Your task to perform on an android device: turn smart compose on in the gmail app Image 0: 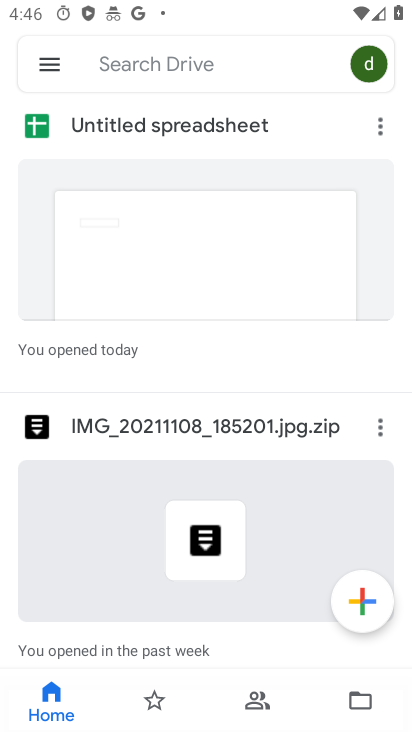
Step 0: press home button
Your task to perform on an android device: turn smart compose on in the gmail app Image 1: 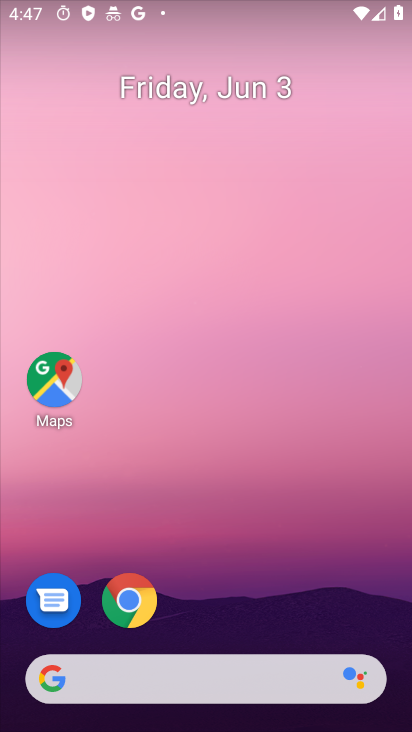
Step 1: drag from (393, 701) to (274, 93)
Your task to perform on an android device: turn smart compose on in the gmail app Image 2: 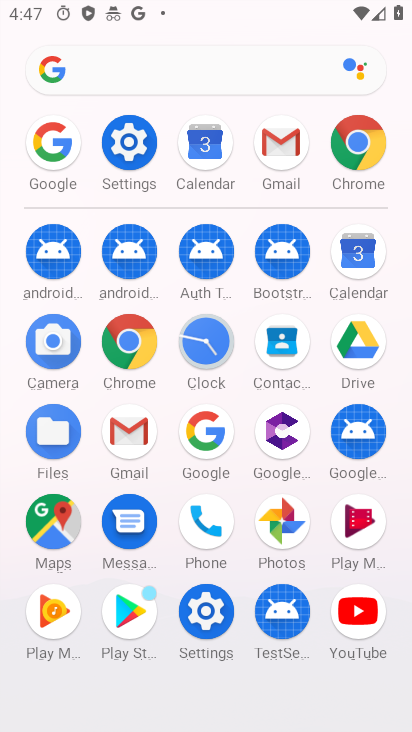
Step 2: click (110, 445)
Your task to perform on an android device: turn smart compose on in the gmail app Image 3: 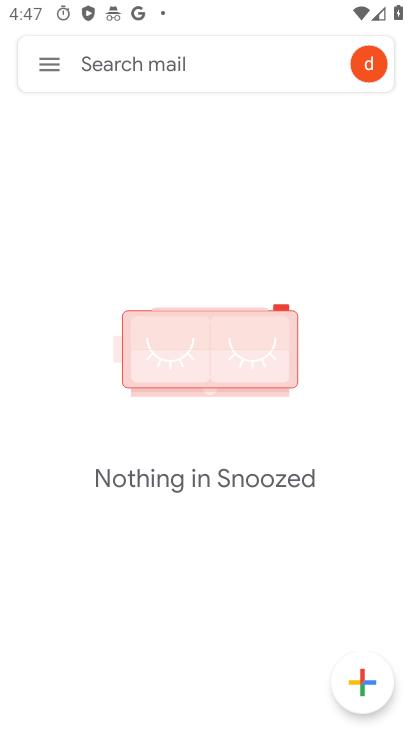
Step 3: click (47, 73)
Your task to perform on an android device: turn smart compose on in the gmail app Image 4: 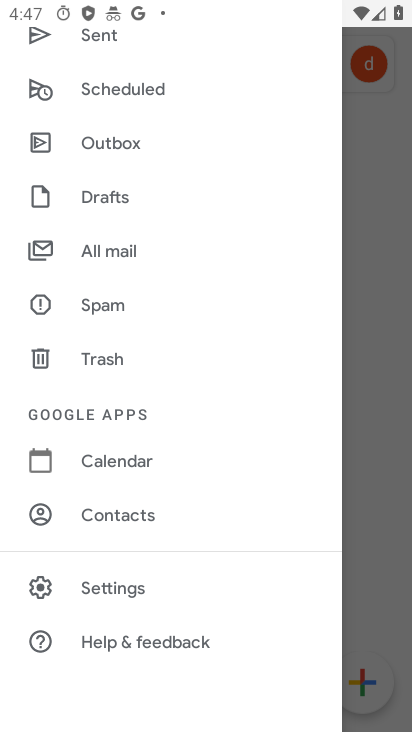
Step 4: click (83, 588)
Your task to perform on an android device: turn smart compose on in the gmail app Image 5: 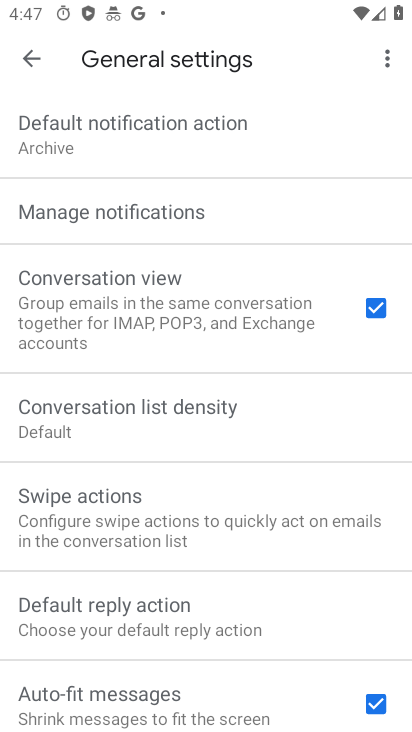
Step 5: click (19, 55)
Your task to perform on an android device: turn smart compose on in the gmail app Image 6: 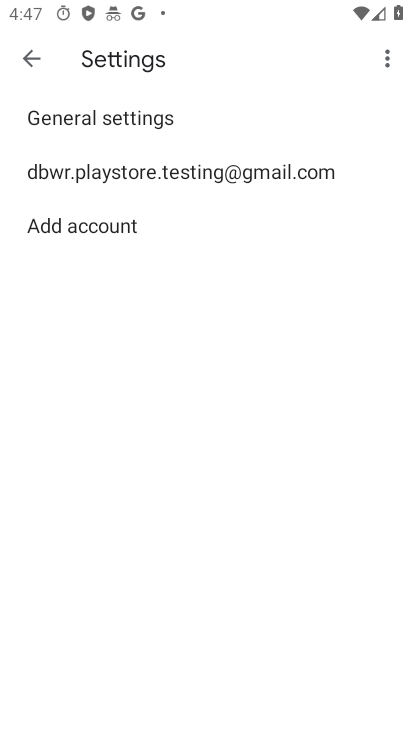
Step 6: click (118, 183)
Your task to perform on an android device: turn smart compose on in the gmail app Image 7: 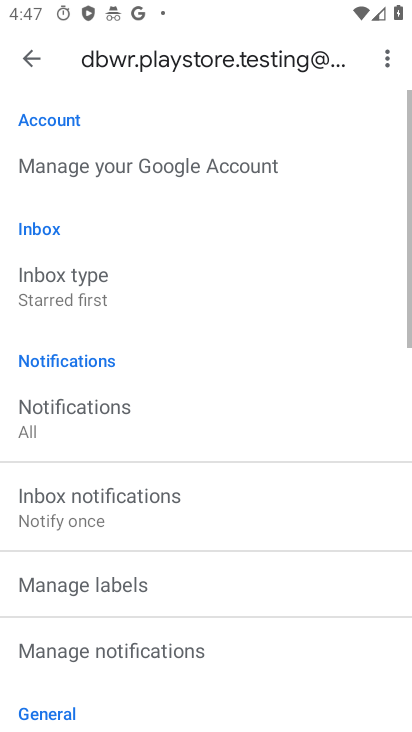
Step 7: task complete